Your task to perform on an android device: Open calendar and show me the fourth week of next month Image 0: 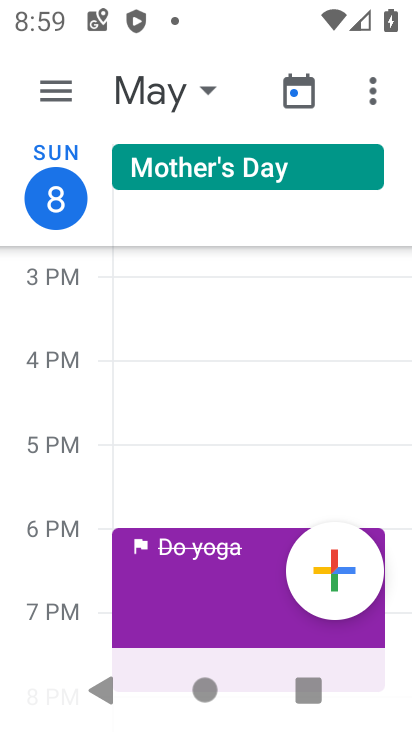
Step 0: click (51, 90)
Your task to perform on an android device: Open calendar and show me the fourth week of next month Image 1: 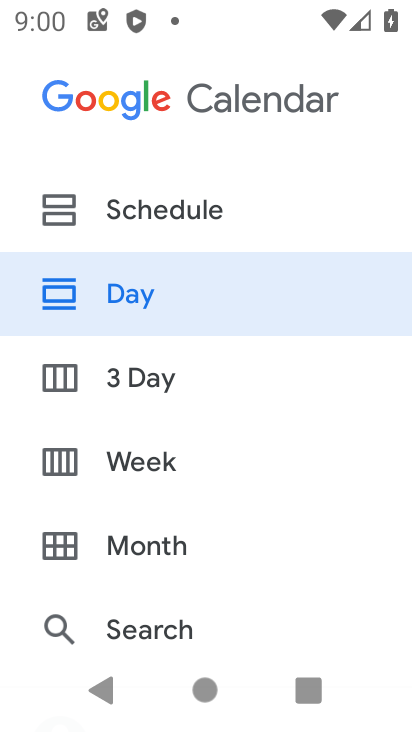
Step 1: click (150, 460)
Your task to perform on an android device: Open calendar and show me the fourth week of next month Image 2: 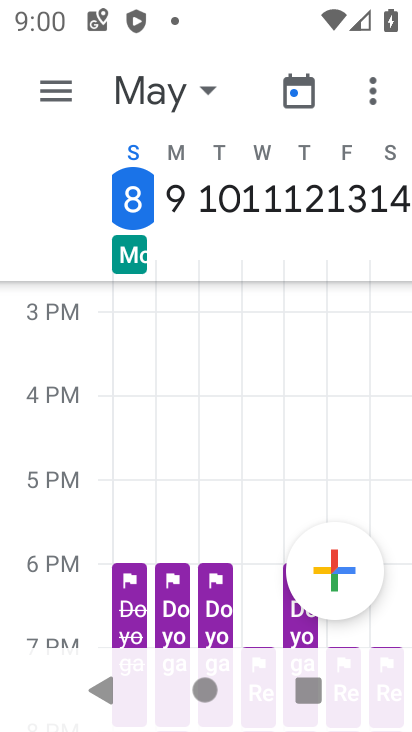
Step 2: click (207, 93)
Your task to perform on an android device: Open calendar and show me the fourth week of next month Image 3: 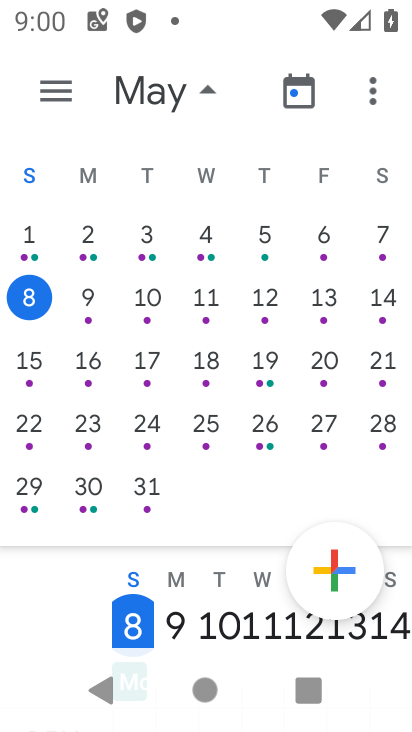
Step 3: drag from (361, 379) to (19, 396)
Your task to perform on an android device: Open calendar and show me the fourth week of next month Image 4: 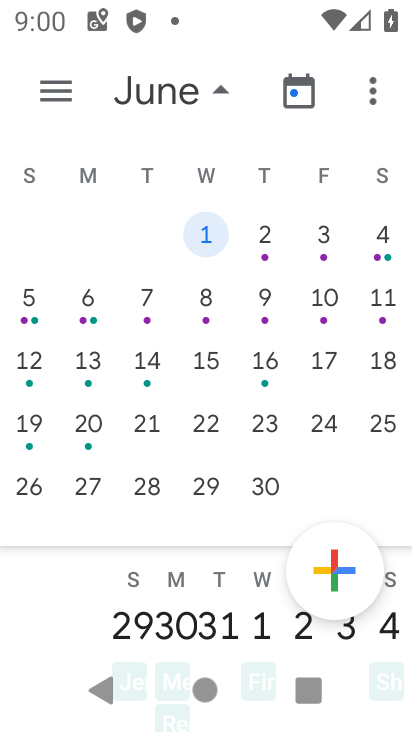
Step 4: click (137, 424)
Your task to perform on an android device: Open calendar and show me the fourth week of next month Image 5: 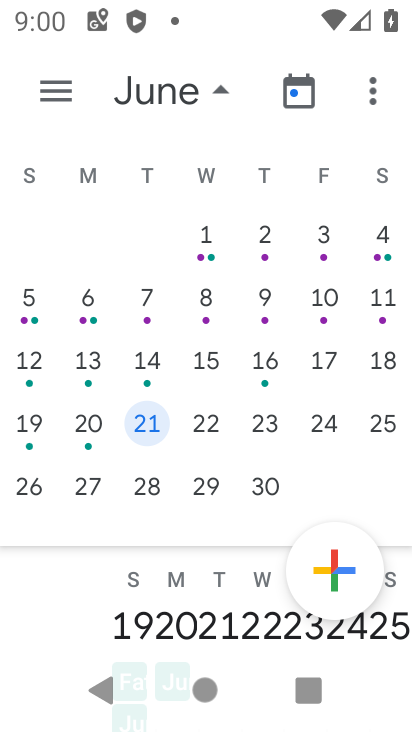
Step 5: task complete